Your task to perform on an android device: open wifi settings Image 0: 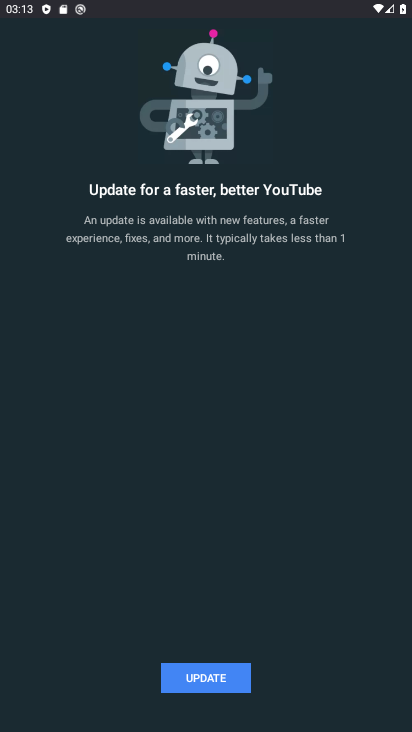
Step 0: press home button
Your task to perform on an android device: open wifi settings Image 1: 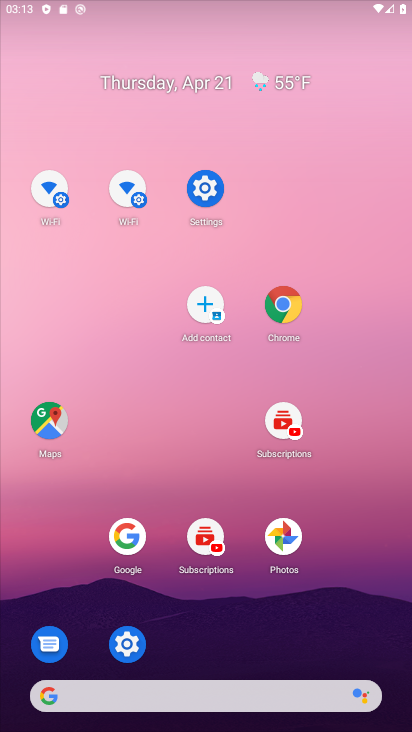
Step 1: drag from (278, 675) to (211, 313)
Your task to perform on an android device: open wifi settings Image 2: 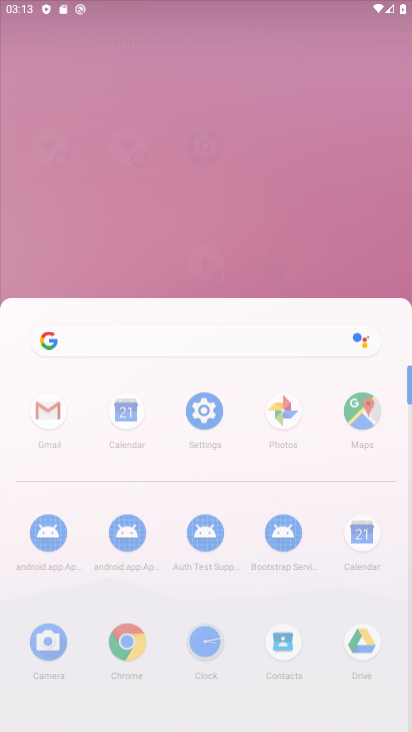
Step 2: click (140, 145)
Your task to perform on an android device: open wifi settings Image 3: 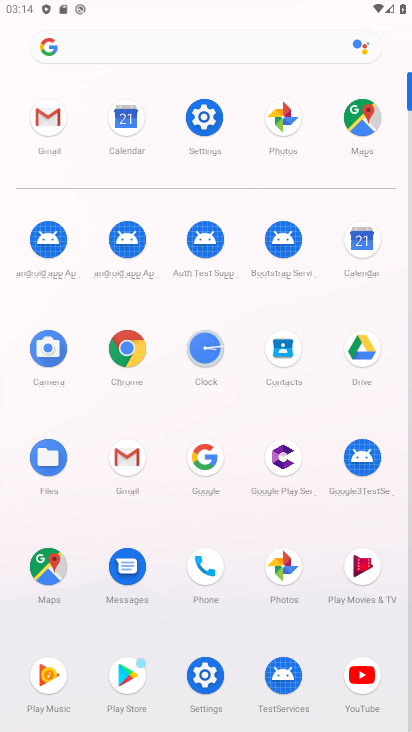
Step 3: click (207, 115)
Your task to perform on an android device: open wifi settings Image 4: 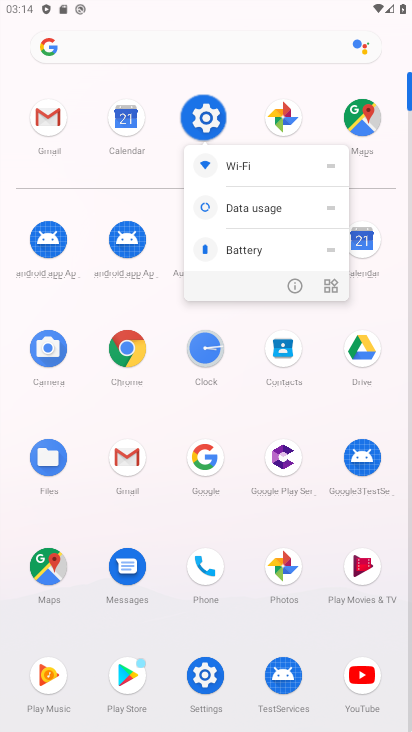
Step 4: click (202, 115)
Your task to perform on an android device: open wifi settings Image 5: 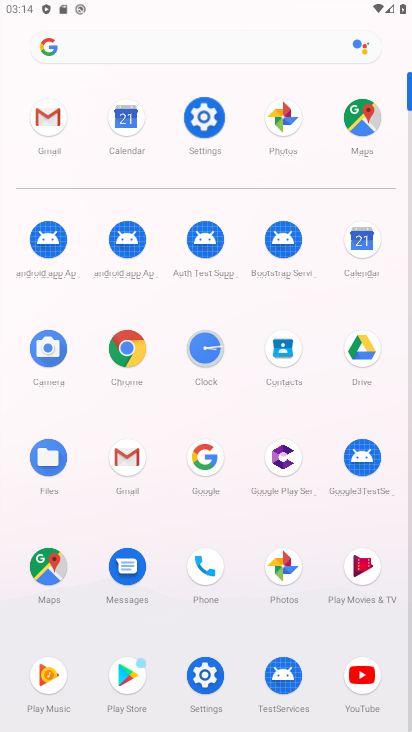
Step 5: click (202, 115)
Your task to perform on an android device: open wifi settings Image 6: 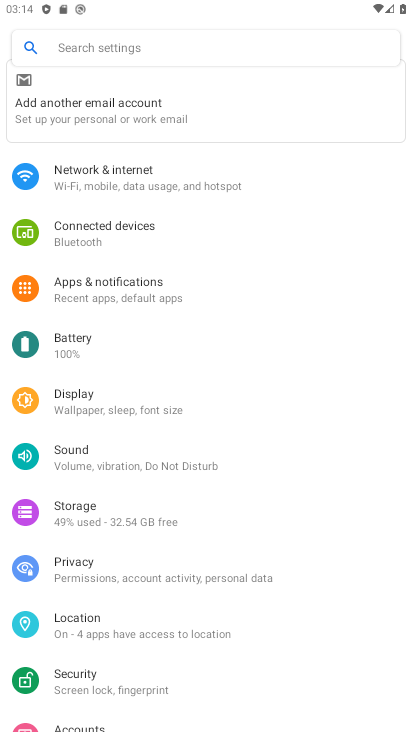
Step 6: click (104, 290)
Your task to perform on an android device: open wifi settings Image 7: 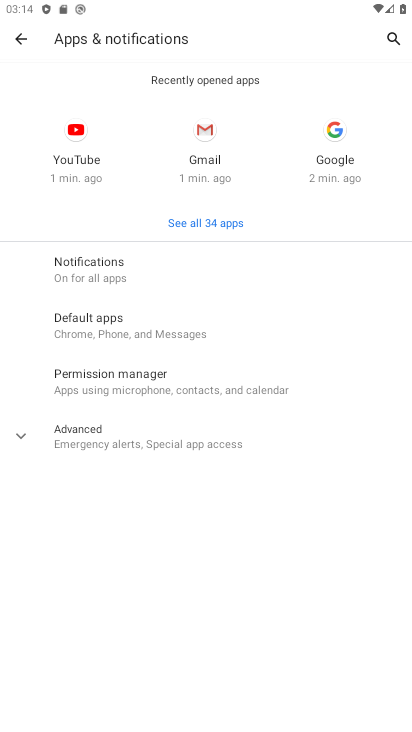
Step 7: click (15, 29)
Your task to perform on an android device: open wifi settings Image 8: 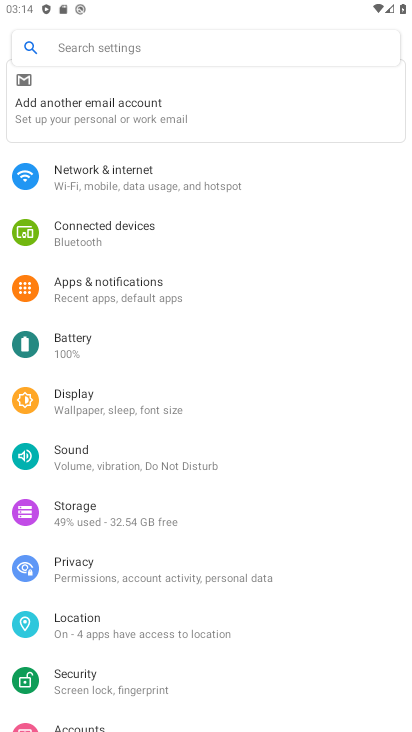
Step 8: click (83, 291)
Your task to perform on an android device: open wifi settings Image 9: 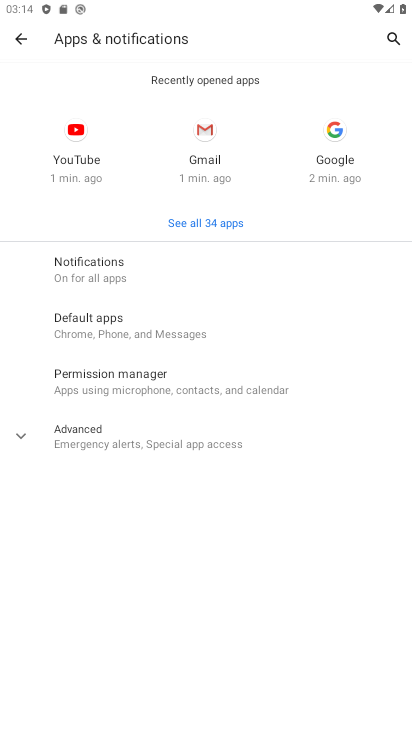
Step 9: click (17, 39)
Your task to perform on an android device: open wifi settings Image 10: 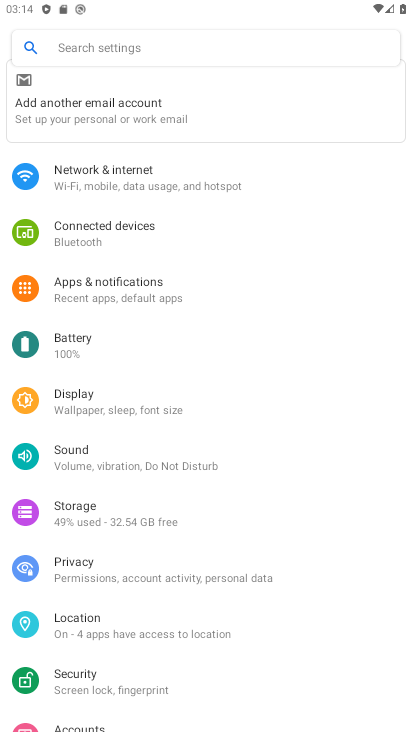
Step 10: click (133, 189)
Your task to perform on an android device: open wifi settings Image 11: 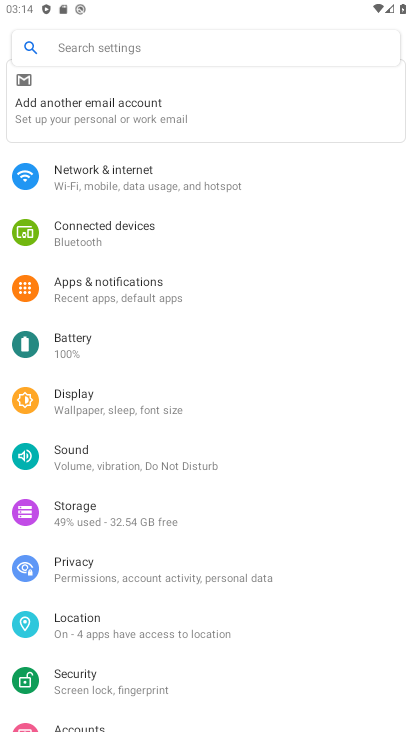
Step 11: click (133, 189)
Your task to perform on an android device: open wifi settings Image 12: 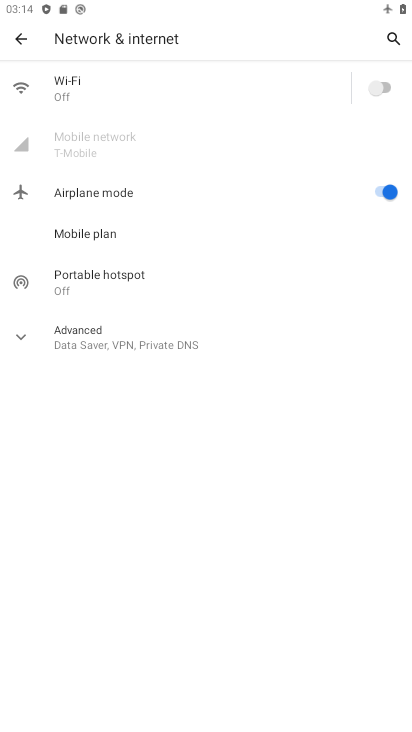
Step 12: click (376, 92)
Your task to perform on an android device: open wifi settings Image 13: 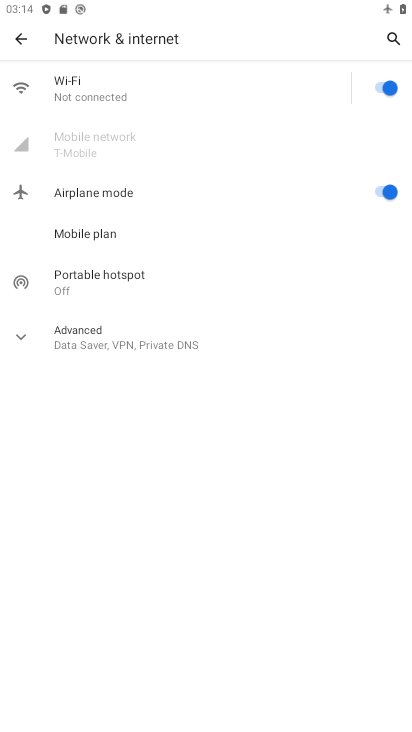
Step 13: click (376, 92)
Your task to perform on an android device: open wifi settings Image 14: 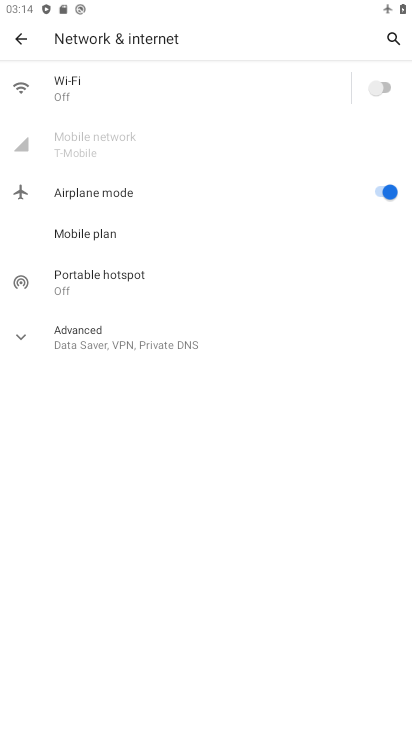
Step 14: click (377, 85)
Your task to perform on an android device: open wifi settings Image 15: 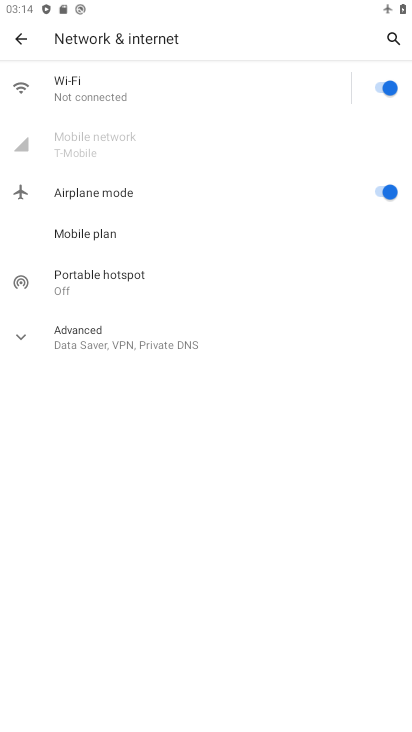
Step 15: task complete